Your task to perform on an android device: Open sound settings Image 0: 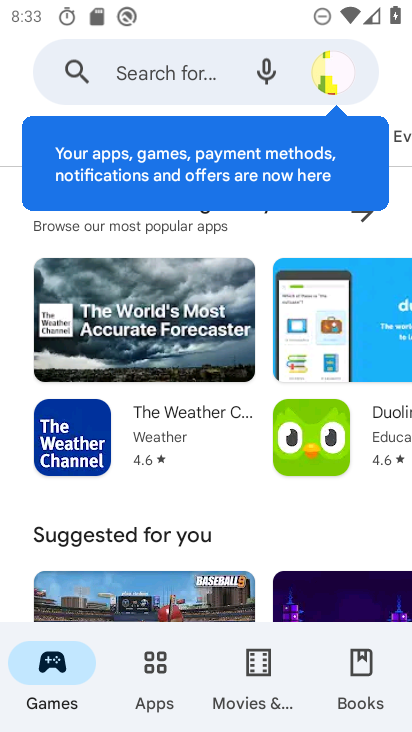
Step 0: press home button
Your task to perform on an android device: Open sound settings Image 1: 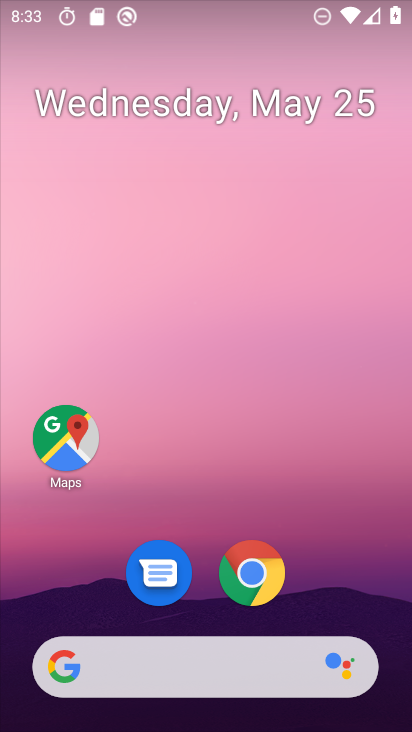
Step 1: drag from (393, 725) to (381, 240)
Your task to perform on an android device: Open sound settings Image 2: 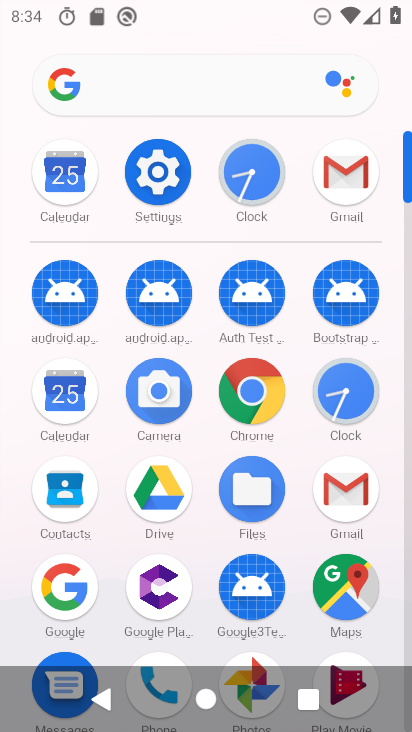
Step 2: click (154, 162)
Your task to perform on an android device: Open sound settings Image 3: 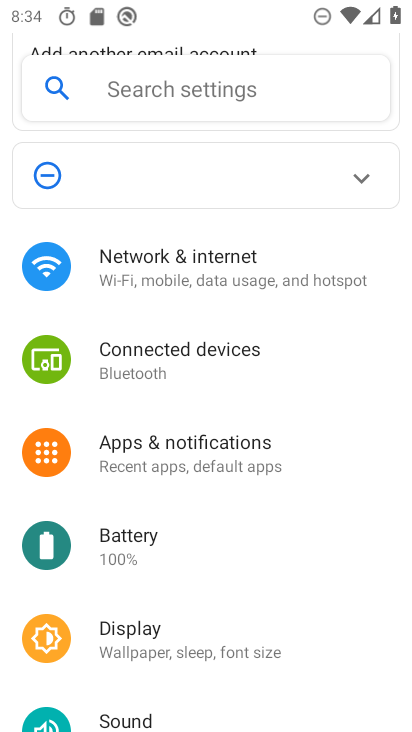
Step 3: click (141, 712)
Your task to perform on an android device: Open sound settings Image 4: 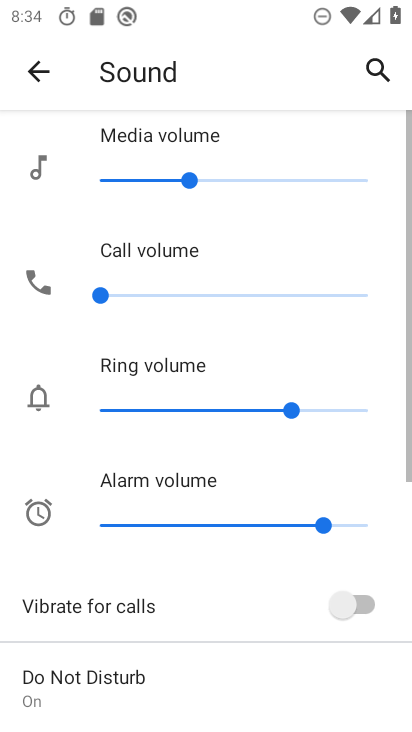
Step 4: drag from (273, 709) to (265, 307)
Your task to perform on an android device: Open sound settings Image 5: 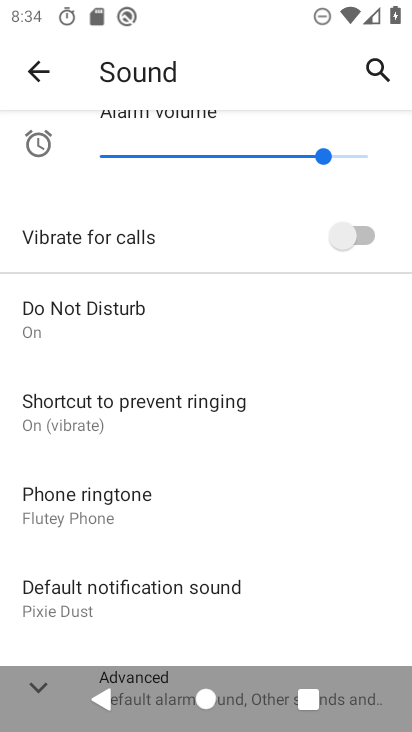
Step 5: drag from (284, 591) to (295, 437)
Your task to perform on an android device: Open sound settings Image 6: 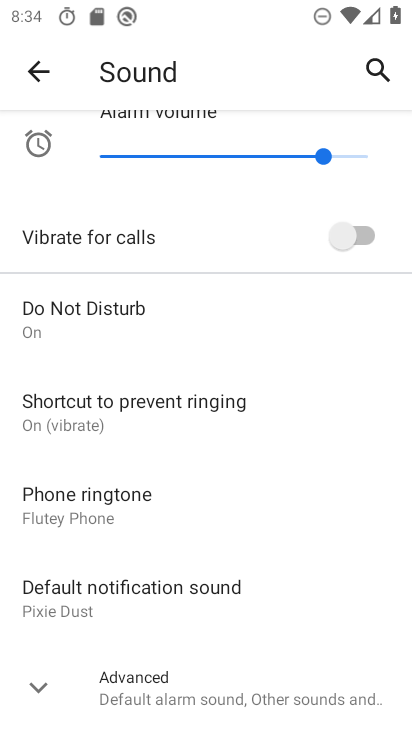
Step 6: click (30, 698)
Your task to perform on an android device: Open sound settings Image 7: 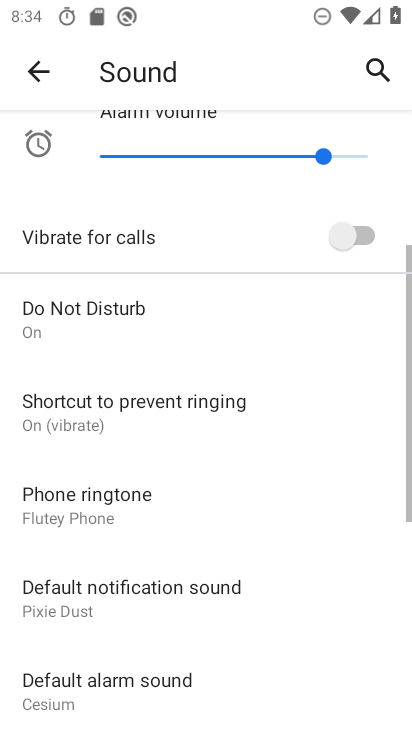
Step 7: task complete